Your task to perform on an android device: toggle translation in the chrome app Image 0: 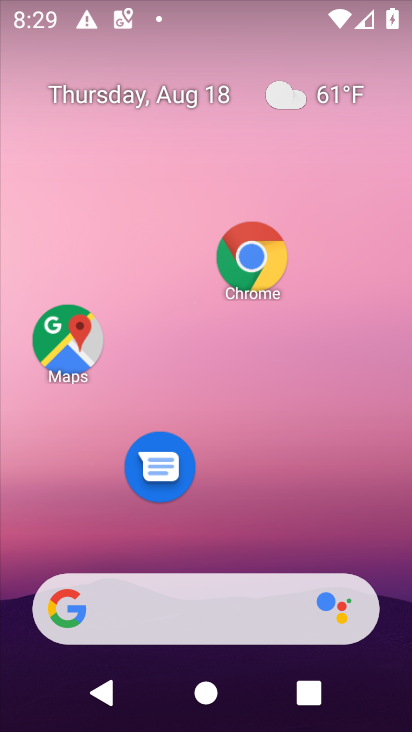
Step 0: drag from (268, 495) to (268, 14)
Your task to perform on an android device: toggle translation in the chrome app Image 1: 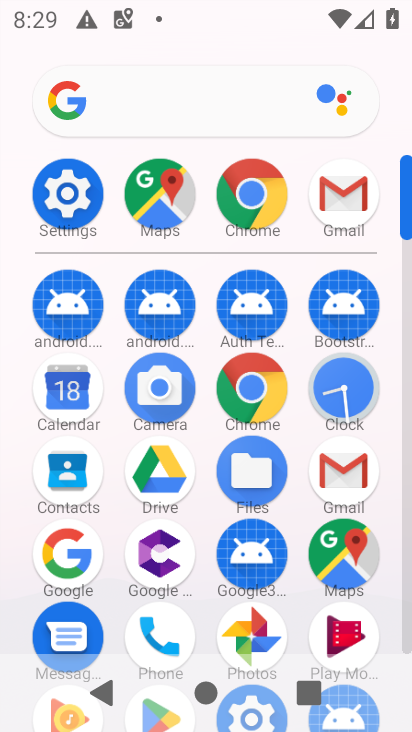
Step 1: task complete